Your task to perform on an android device: turn off notifications in google photos Image 0: 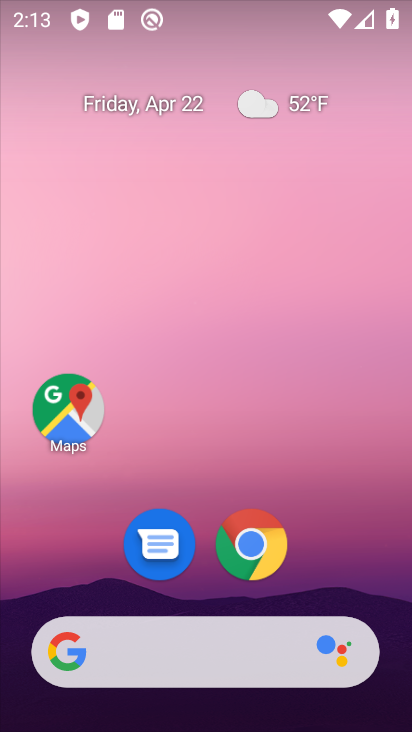
Step 0: drag from (225, 586) to (181, 133)
Your task to perform on an android device: turn off notifications in google photos Image 1: 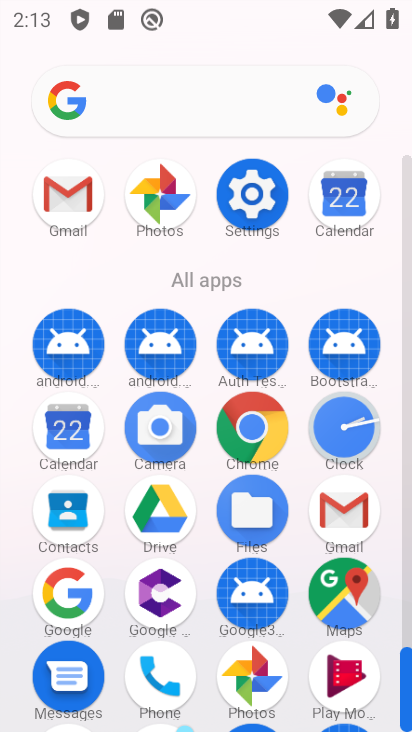
Step 1: click (175, 179)
Your task to perform on an android device: turn off notifications in google photos Image 2: 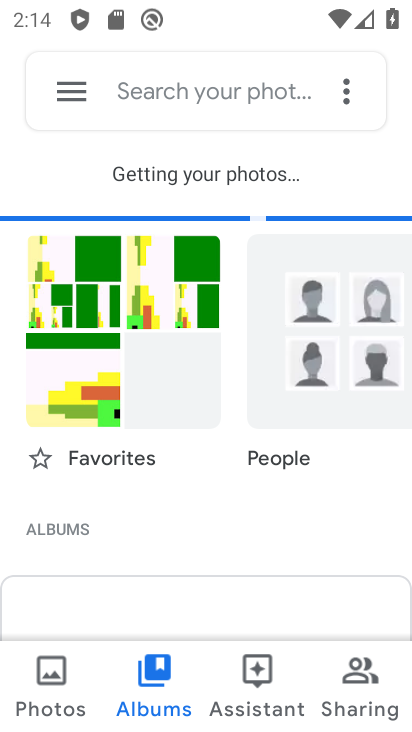
Step 2: click (80, 74)
Your task to perform on an android device: turn off notifications in google photos Image 3: 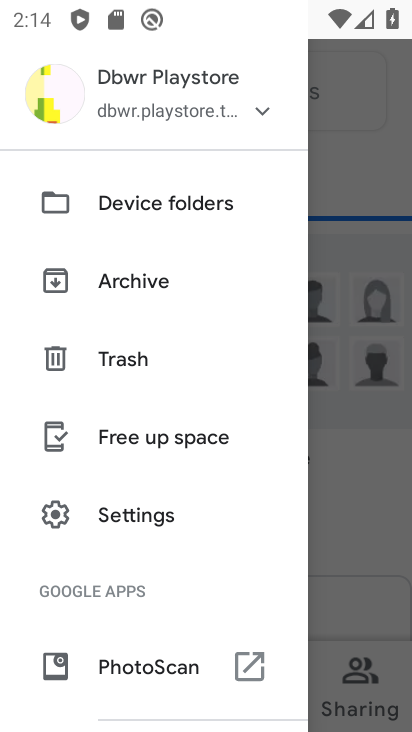
Step 3: click (144, 538)
Your task to perform on an android device: turn off notifications in google photos Image 4: 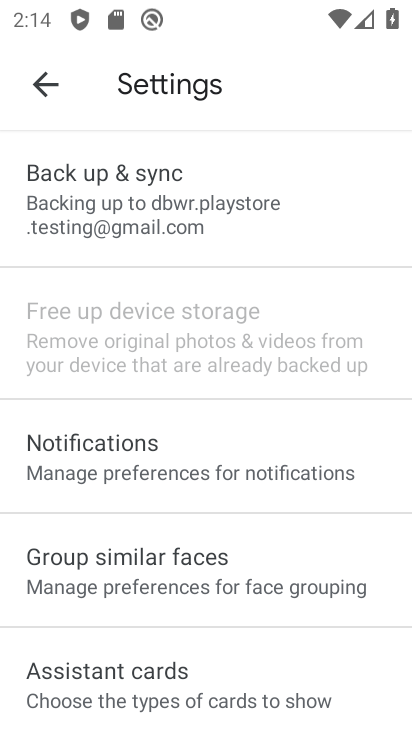
Step 4: click (130, 487)
Your task to perform on an android device: turn off notifications in google photos Image 5: 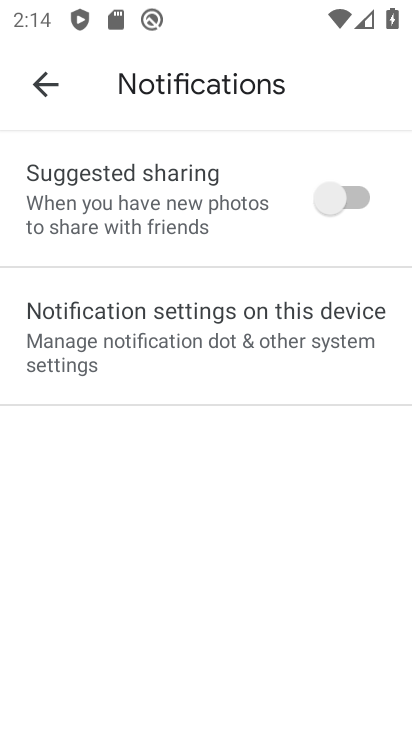
Step 5: click (240, 287)
Your task to perform on an android device: turn off notifications in google photos Image 6: 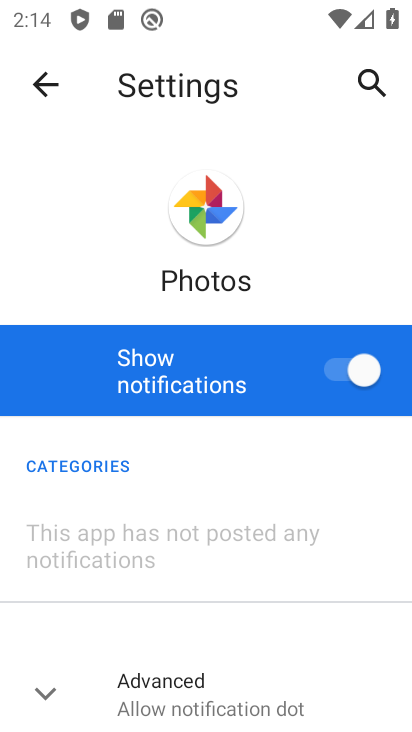
Step 6: click (339, 368)
Your task to perform on an android device: turn off notifications in google photos Image 7: 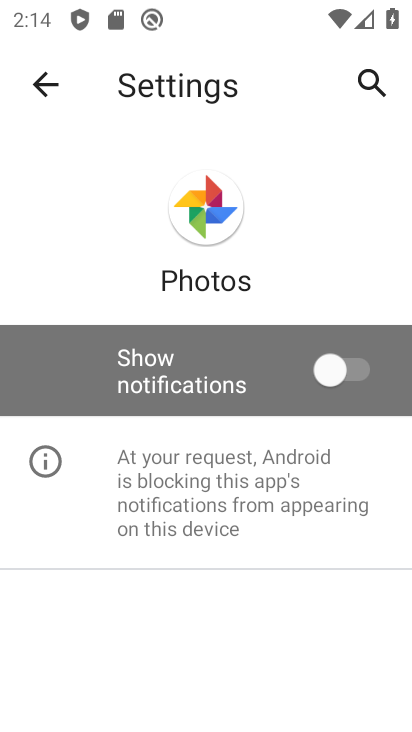
Step 7: task complete